Your task to perform on an android device: set default search engine in the chrome app Image 0: 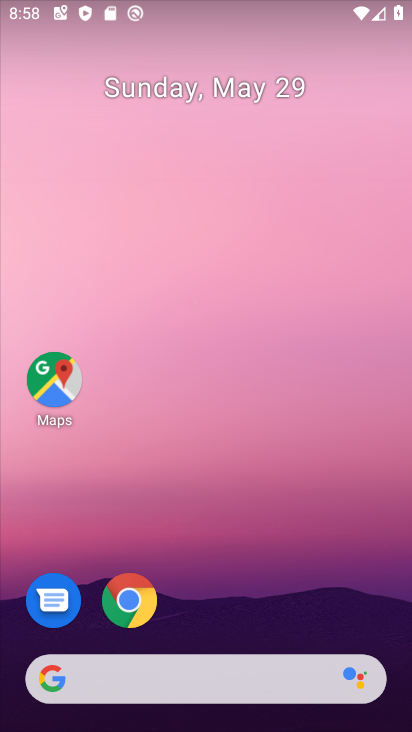
Step 0: drag from (206, 724) to (208, 114)
Your task to perform on an android device: set default search engine in the chrome app Image 1: 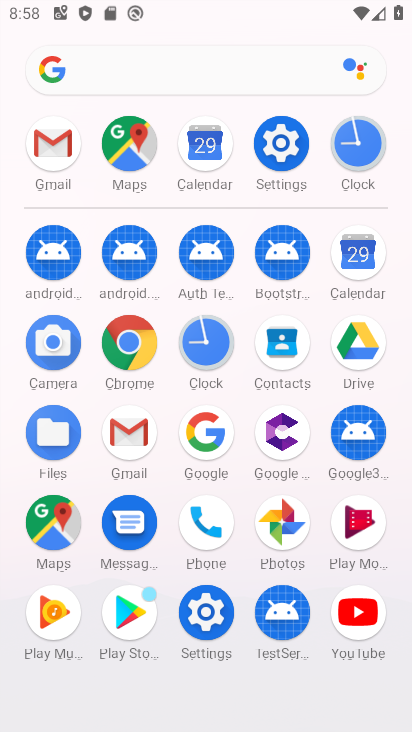
Step 1: click (130, 351)
Your task to perform on an android device: set default search engine in the chrome app Image 2: 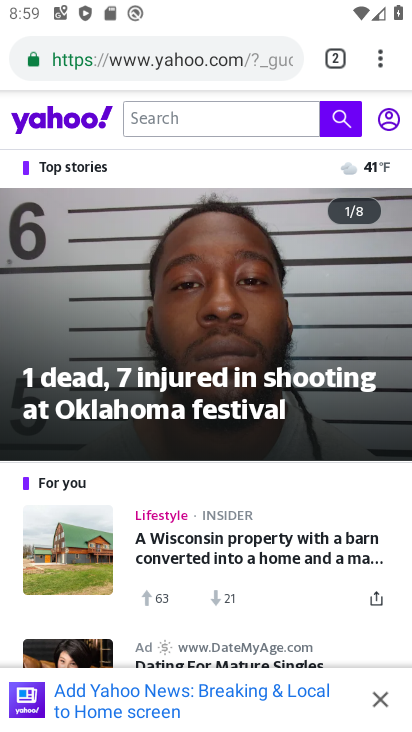
Step 2: click (380, 64)
Your task to perform on an android device: set default search engine in the chrome app Image 3: 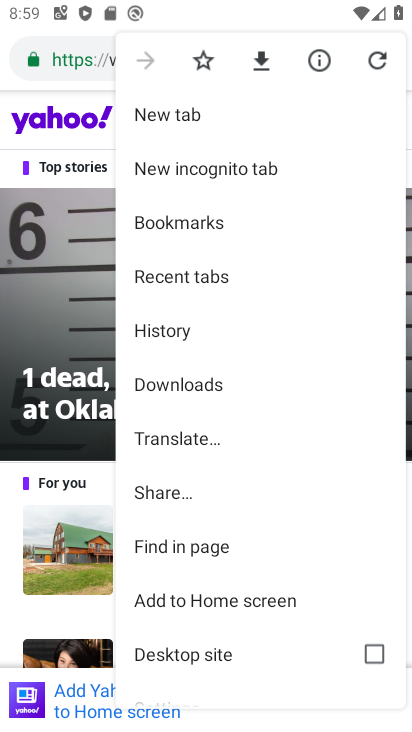
Step 3: drag from (196, 640) to (204, 192)
Your task to perform on an android device: set default search engine in the chrome app Image 4: 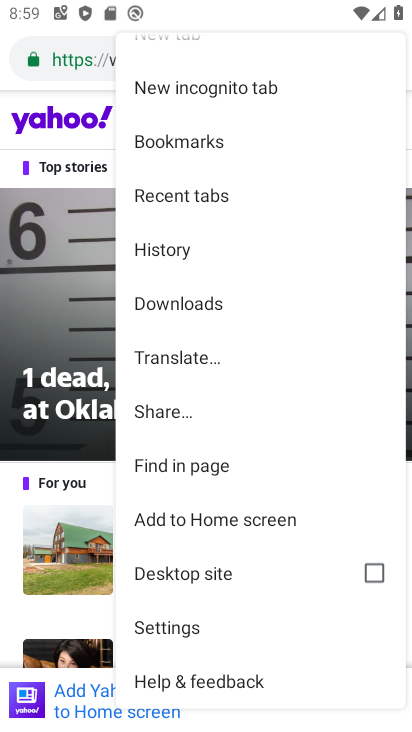
Step 4: click (183, 625)
Your task to perform on an android device: set default search engine in the chrome app Image 5: 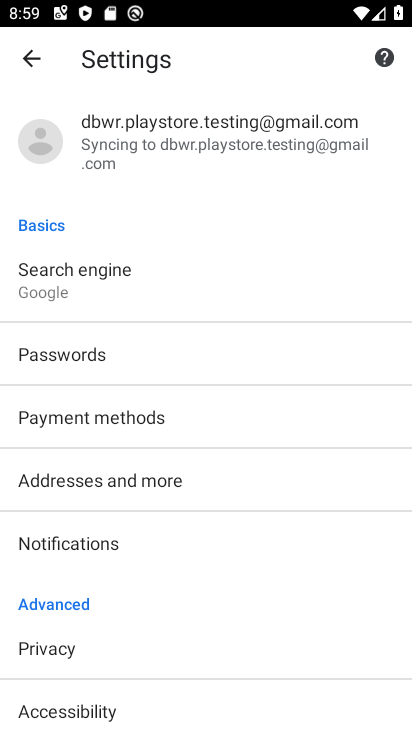
Step 5: click (65, 287)
Your task to perform on an android device: set default search engine in the chrome app Image 6: 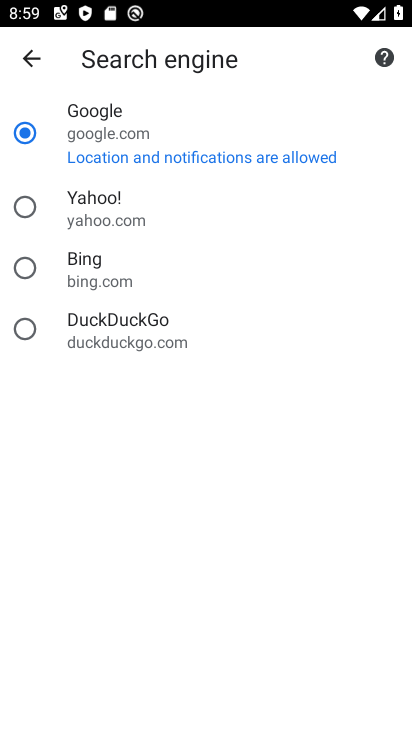
Step 6: click (26, 204)
Your task to perform on an android device: set default search engine in the chrome app Image 7: 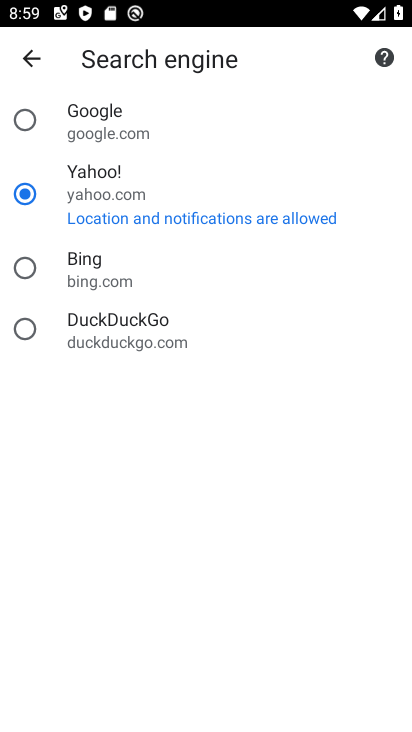
Step 7: task complete